Your task to perform on an android device: turn off javascript in the chrome app Image 0: 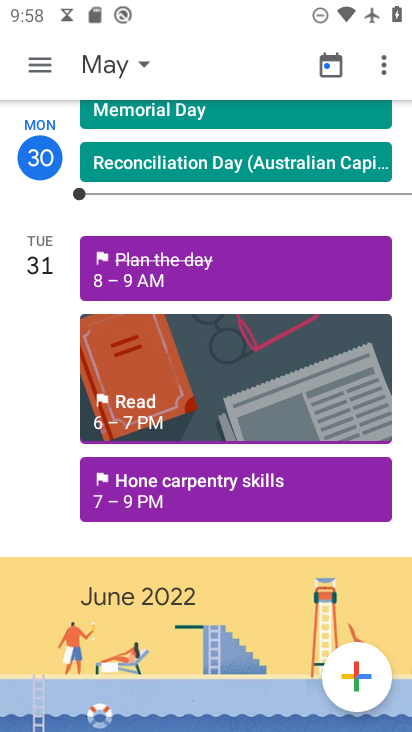
Step 0: press home button
Your task to perform on an android device: turn off javascript in the chrome app Image 1: 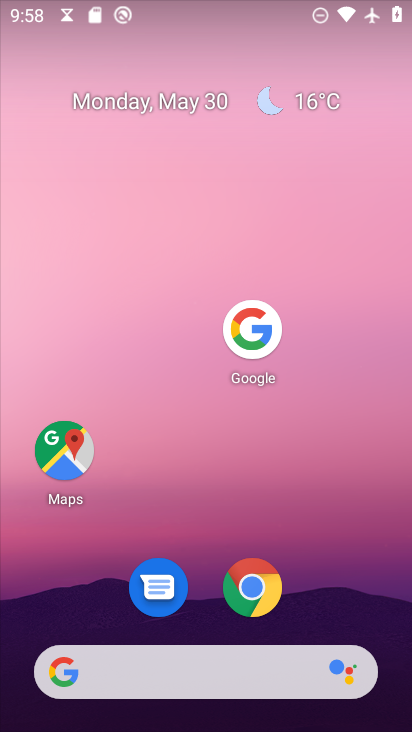
Step 1: click (249, 600)
Your task to perform on an android device: turn off javascript in the chrome app Image 2: 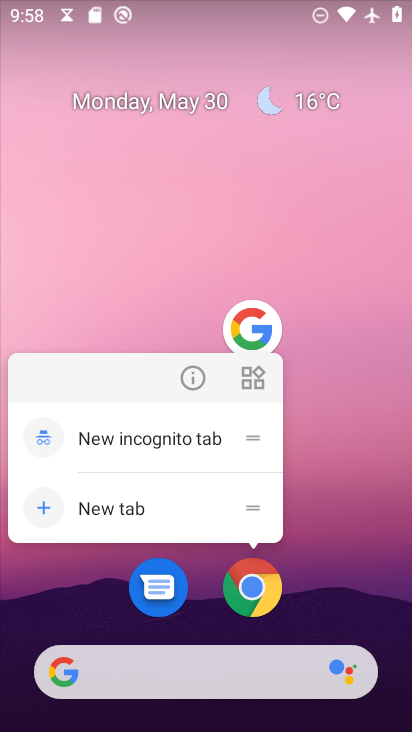
Step 2: click (256, 592)
Your task to perform on an android device: turn off javascript in the chrome app Image 3: 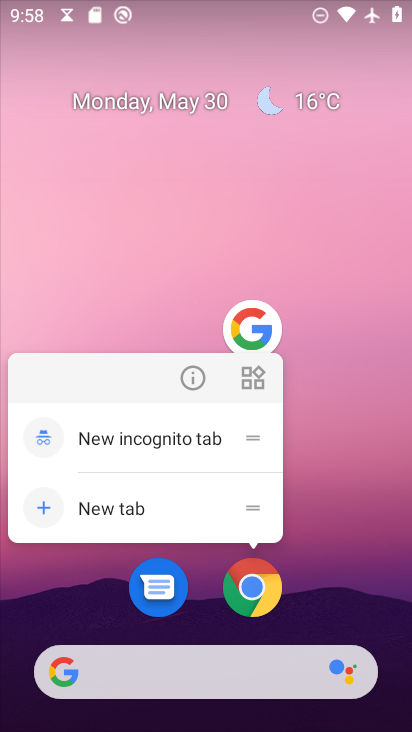
Step 3: click (249, 601)
Your task to perform on an android device: turn off javascript in the chrome app Image 4: 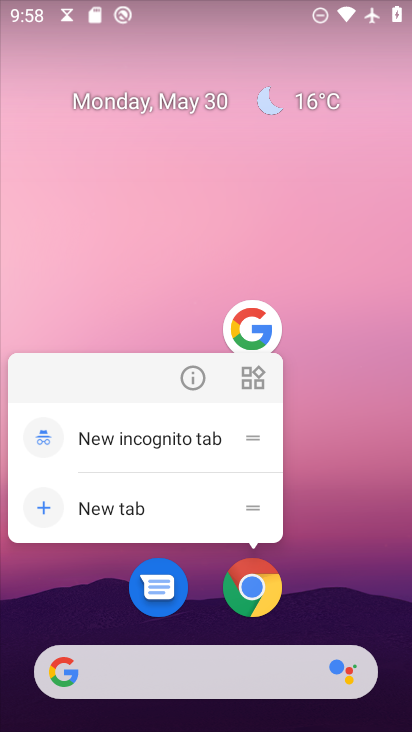
Step 4: click (258, 592)
Your task to perform on an android device: turn off javascript in the chrome app Image 5: 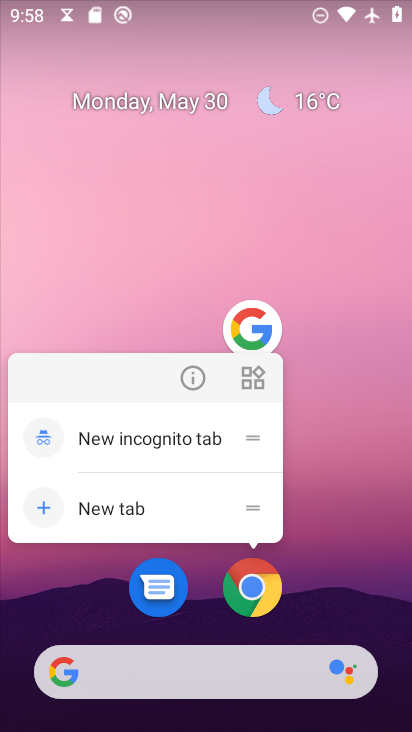
Step 5: click (252, 593)
Your task to perform on an android device: turn off javascript in the chrome app Image 6: 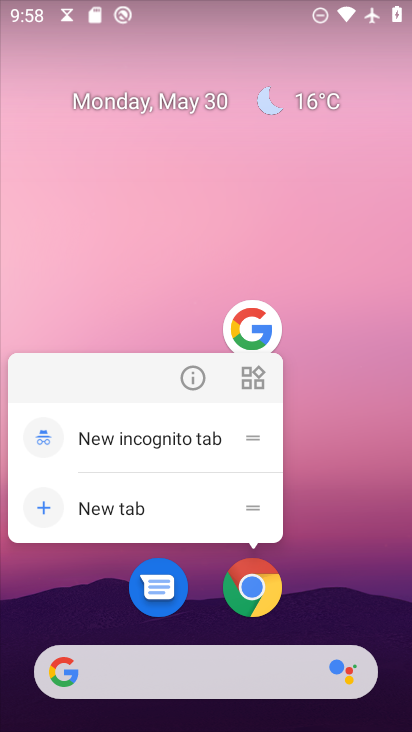
Step 6: click (251, 594)
Your task to perform on an android device: turn off javascript in the chrome app Image 7: 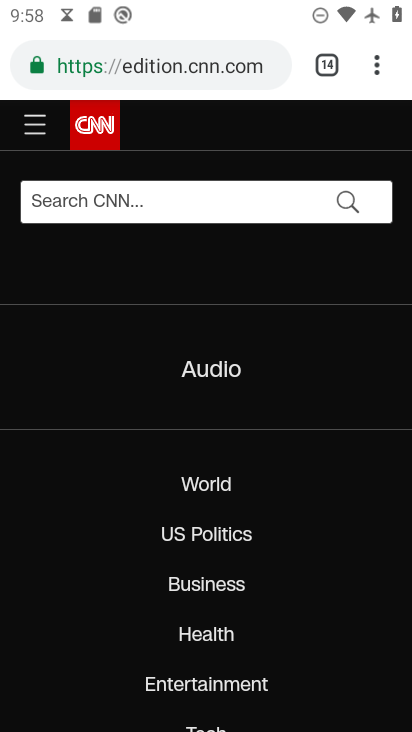
Step 7: drag from (377, 66) to (236, 640)
Your task to perform on an android device: turn off javascript in the chrome app Image 8: 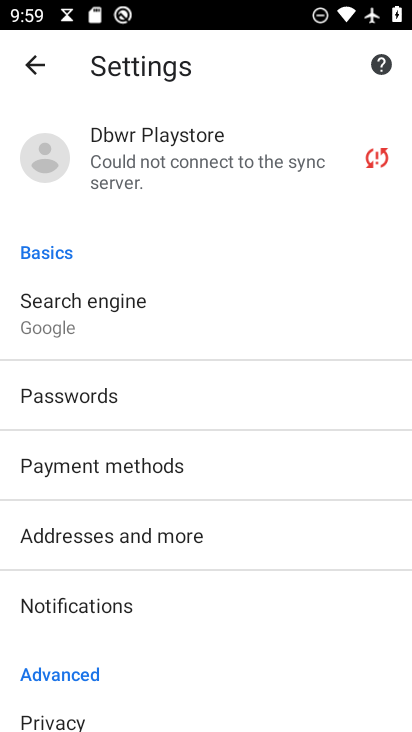
Step 8: drag from (236, 639) to (302, 135)
Your task to perform on an android device: turn off javascript in the chrome app Image 9: 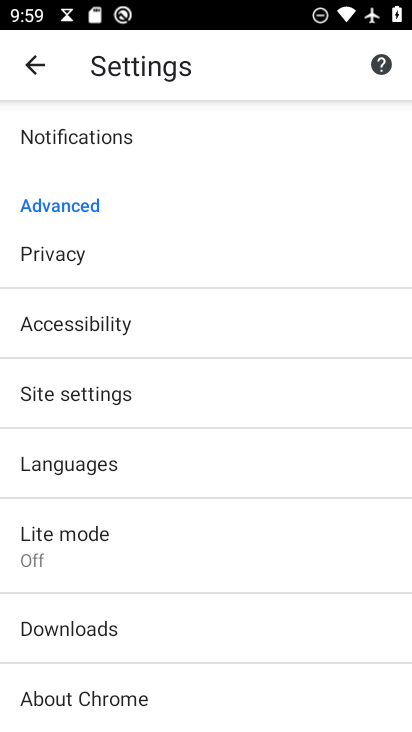
Step 9: click (149, 397)
Your task to perform on an android device: turn off javascript in the chrome app Image 10: 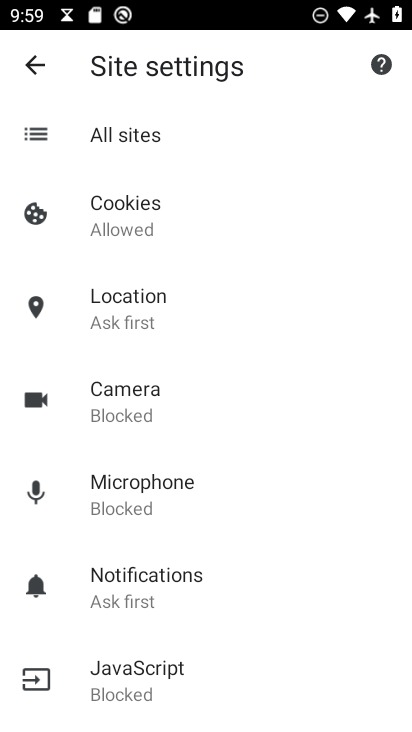
Step 10: click (139, 672)
Your task to perform on an android device: turn off javascript in the chrome app Image 11: 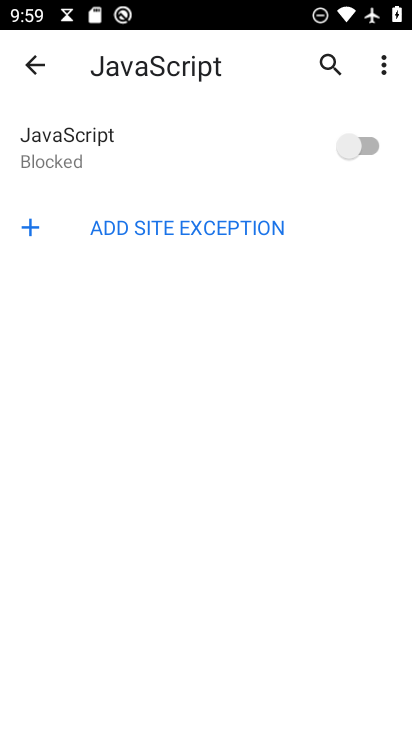
Step 11: task complete